Your task to perform on an android device: Open Yahoo.com Image 0: 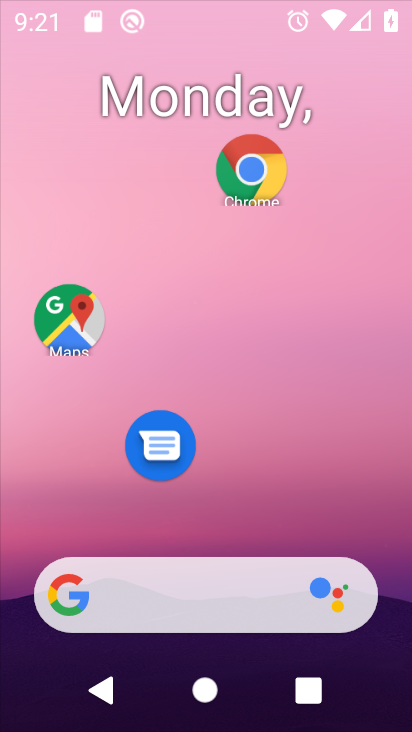
Step 0: press home button
Your task to perform on an android device: Open Yahoo.com Image 1: 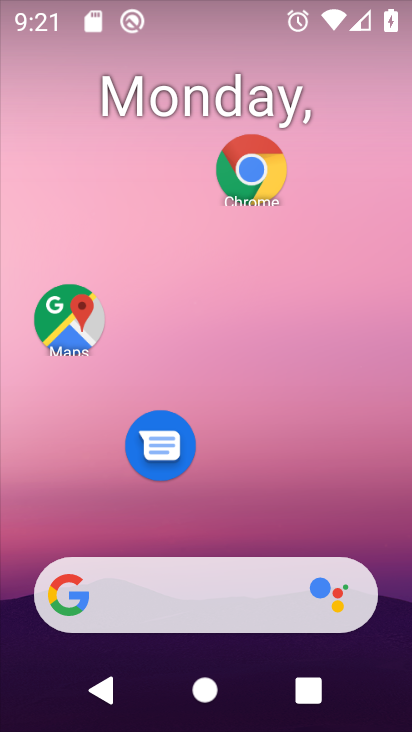
Step 1: click (246, 154)
Your task to perform on an android device: Open Yahoo.com Image 2: 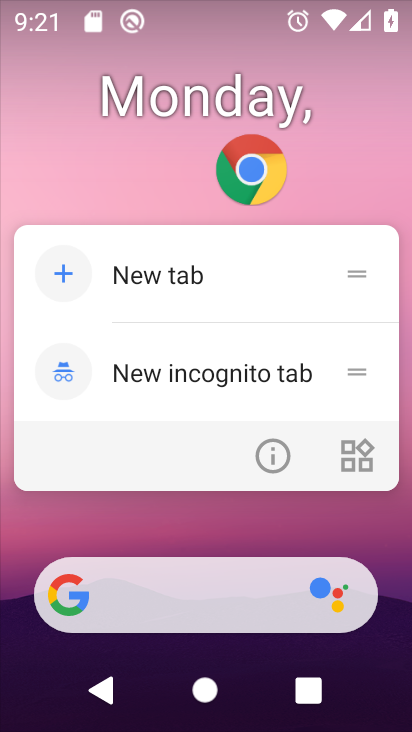
Step 2: click (246, 163)
Your task to perform on an android device: Open Yahoo.com Image 3: 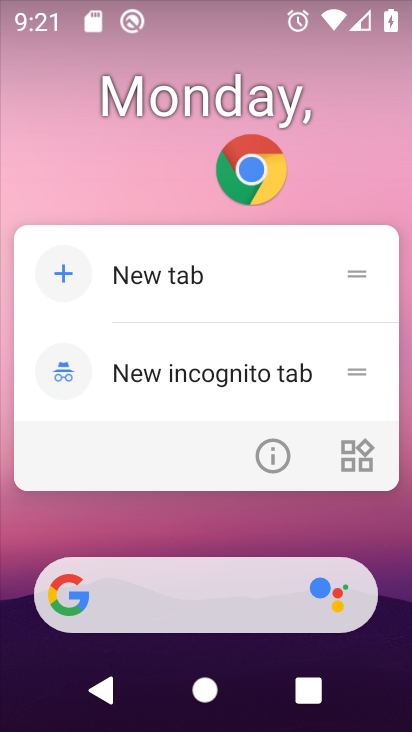
Step 3: click (244, 158)
Your task to perform on an android device: Open Yahoo.com Image 4: 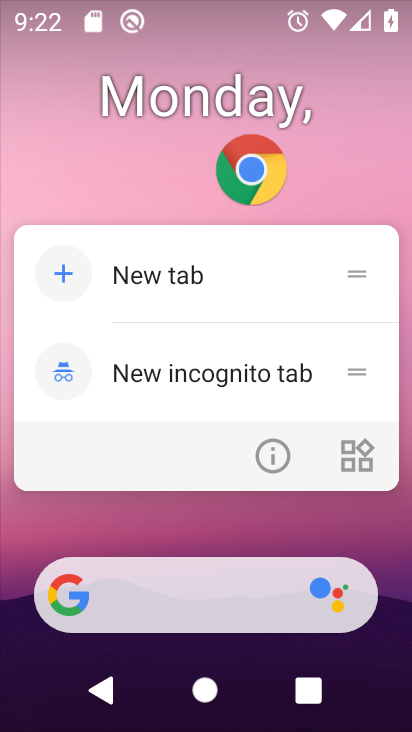
Step 4: click (255, 162)
Your task to perform on an android device: Open Yahoo.com Image 5: 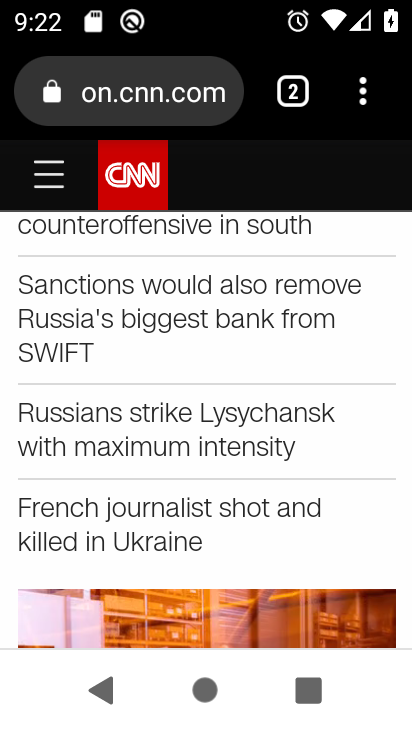
Step 5: click (285, 92)
Your task to perform on an android device: Open Yahoo.com Image 6: 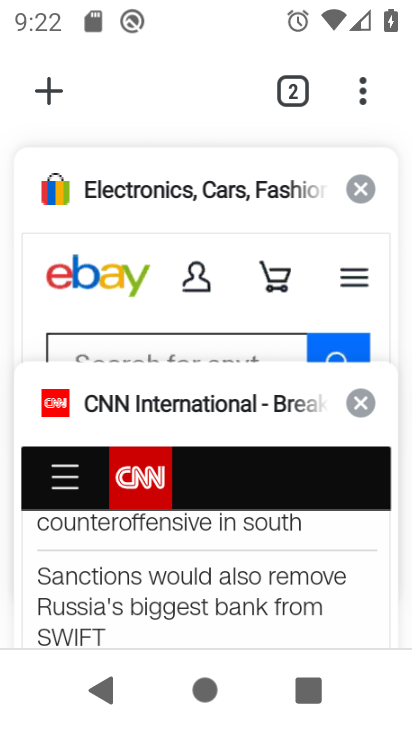
Step 6: click (363, 185)
Your task to perform on an android device: Open Yahoo.com Image 7: 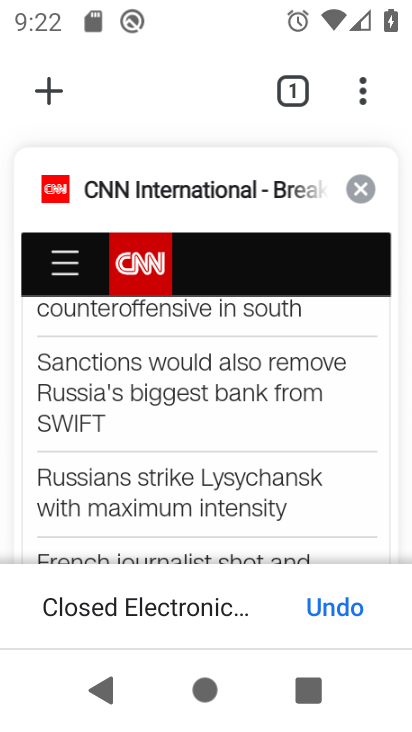
Step 7: click (359, 189)
Your task to perform on an android device: Open Yahoo.com Image 8: 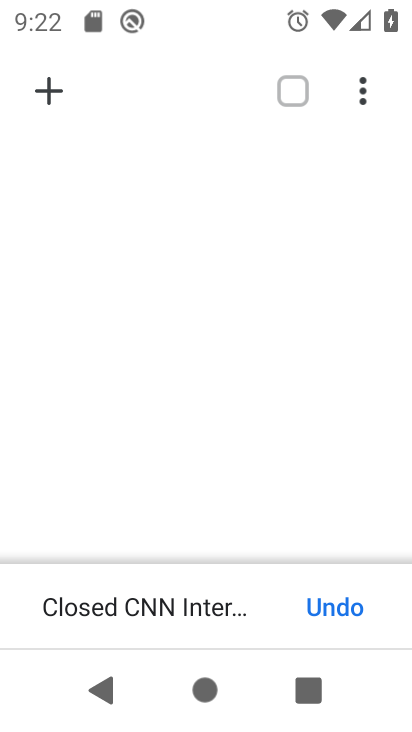
Step 8: click (55, 93)
Your task to perform on an android device: Open Yahoo.com Image 9: 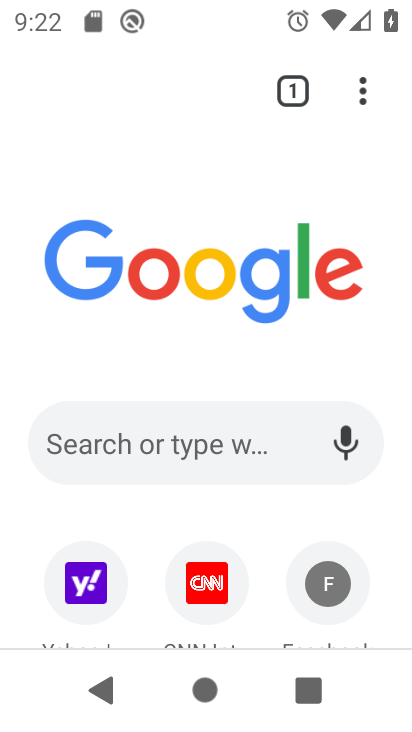
Step 9: click (82, 577)
Your task to perform on an android device: Open Yahoo.com Image 10: 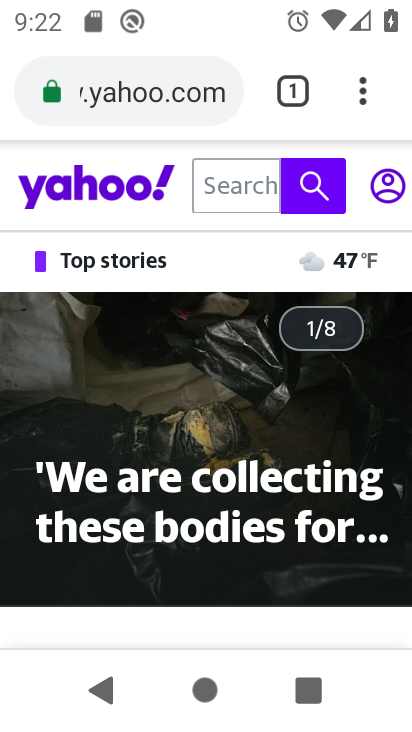
Step 10: task complete